Your task to perform on an android device: change the upload size in google photos Image 0: 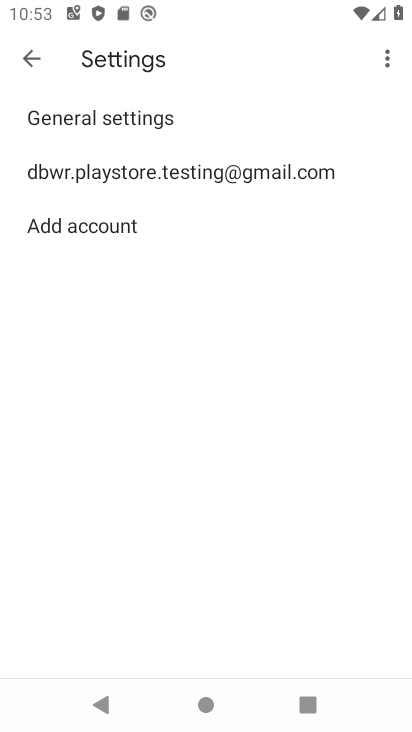
Step 0: press home button
Your task to perform on an android device: change the upload size in google photos Image 1: 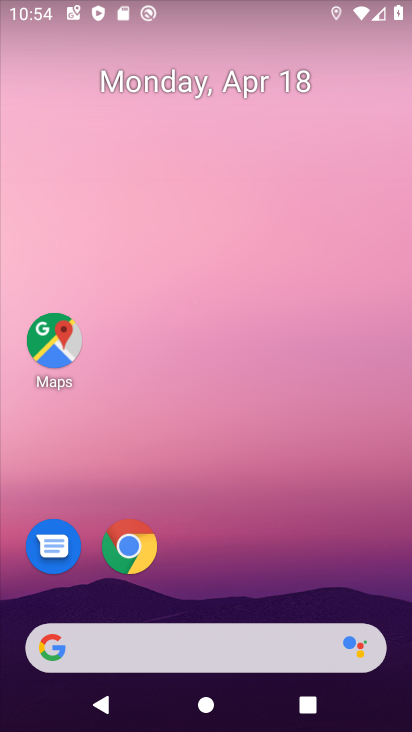
Step 1: drag from (231, 565) to (291, 84)
Your task to perform on an android device: change the upload size in google photos Image 2: 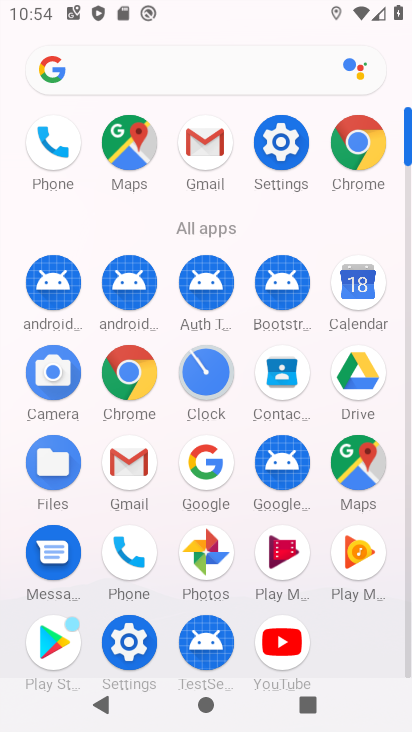
Step 2: click (230, 570)
Your task to perform on an android device: change the upload size in google photos Image 3: 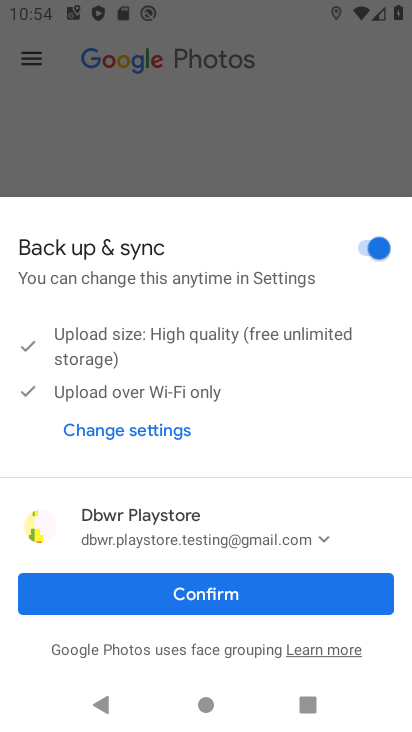
Step 3: click (218, 582)
Your task to perform on an android device: change the upload size in google photos Image 4: 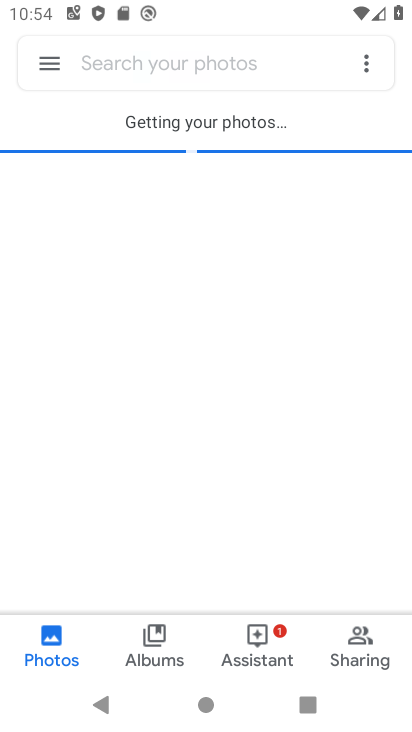
Step 4: click (59, 65)
Your task to perform on an android device: change the upload size in google photos Image 5: 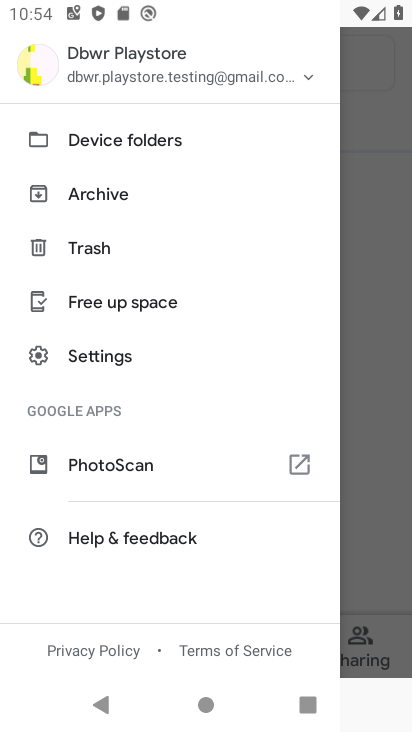
Step 5: click (134, 346)
Your task to perform on an android device: change the upload size in google photos Image 6: 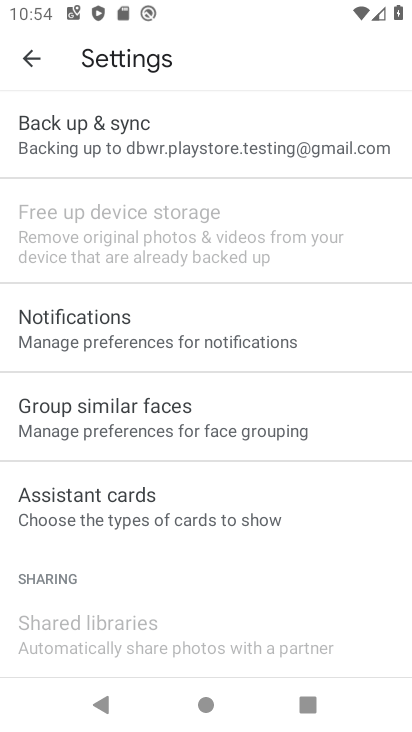
Step 6: drag from (148, 353) to (186, 90)
Your task to perform on an android device: change the upload size in google photos Image 7: 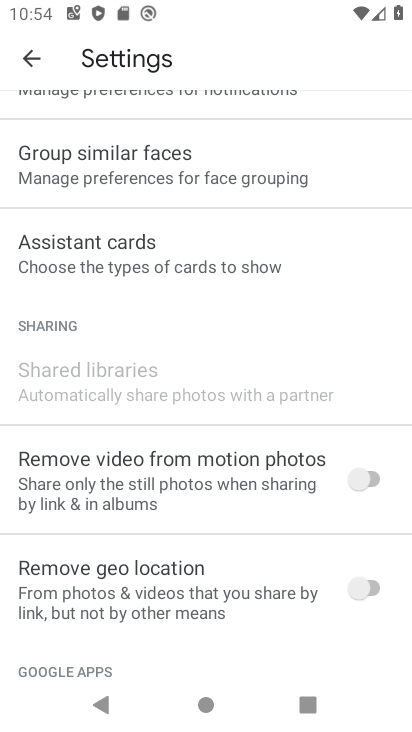
Step 7: drag from (216, 488) to (232, 241)
Your task to perform on an android device: change the upload size in google photos Image 8: 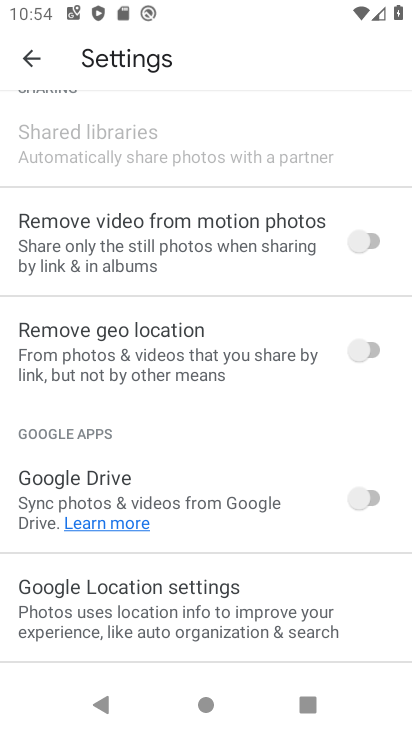
Step 8: drag from (205, 587) to (228, 260)
Your task to perform on an android device: change the upload size in google photos Image 9: 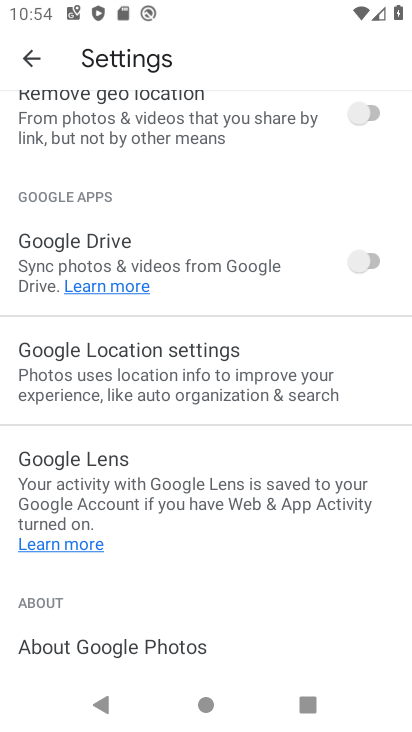
Step 9: drag from (228, 260) to (220, 660)
Your task to perform on an android device: change the upload size in google photos Image 10: 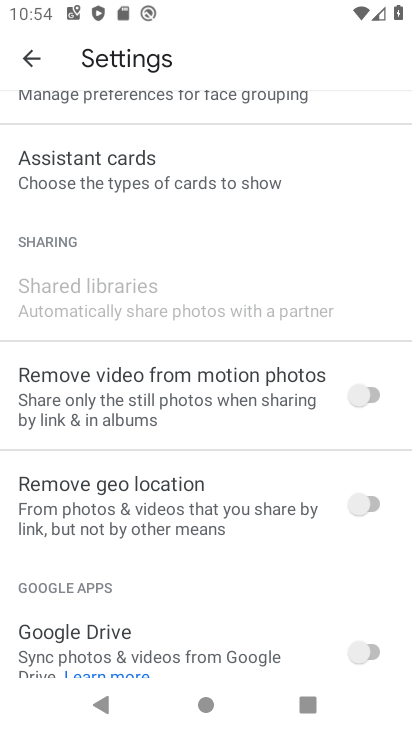
Step 10: drag from (225, 274) to (226, 550)
Your task to perform on an android device: change the upload size in google photos Image 11: 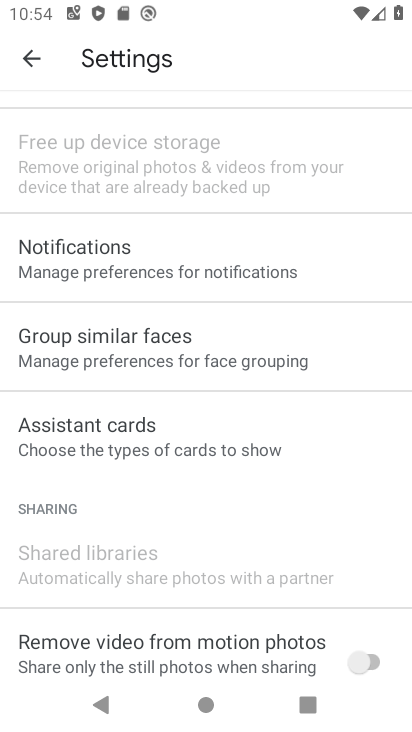
Step 11: drag from (208, 157) to (187, 639)
Your task to perform on an android device: change the upload size in google photos Image 12: 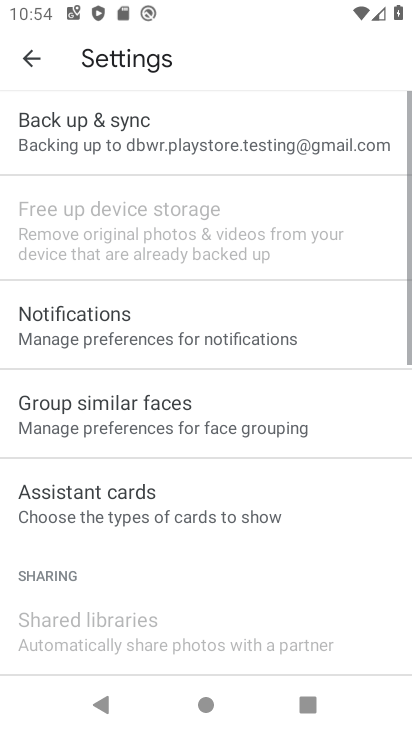
Step 12: click (205, 152)
Your task to perform on an android device: change the upload size in google photos Image 13: 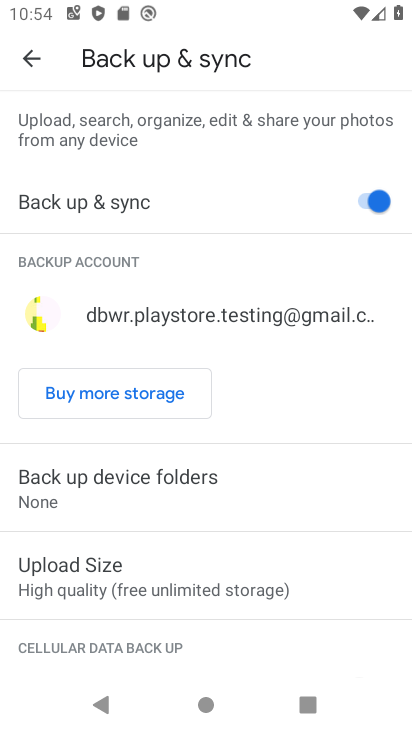
Step 13: click (178, 577)
Your task to perform on an android device: change the upload size in google photos Image 14: 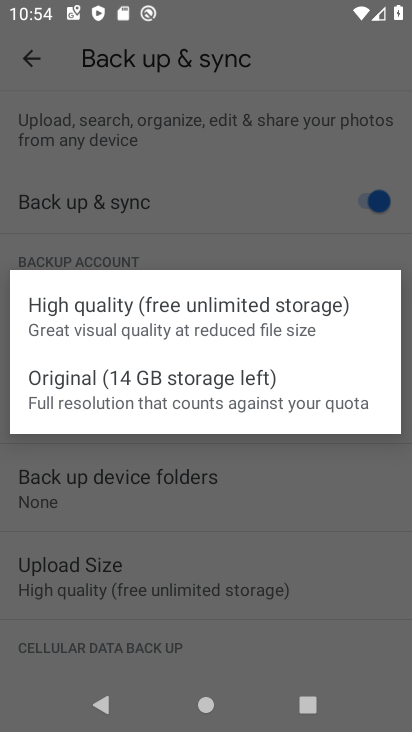
Step 14: click (180, 380)
Your task to perform on an android device: change the upload size in google photos Image 15: 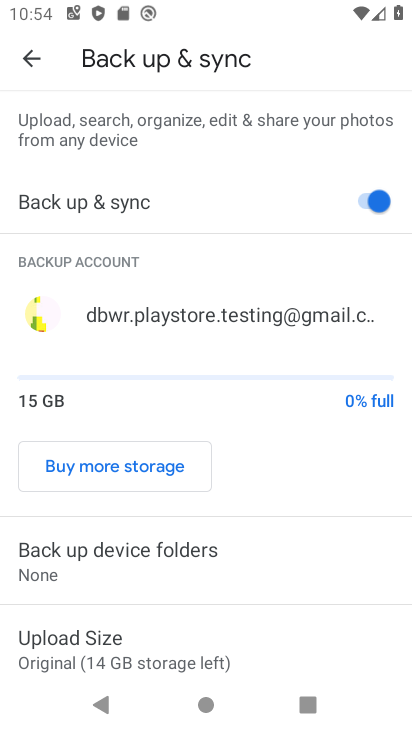
Step 15: task complete